Your task to perform on an android device: change the upload size in google photos Image 0: 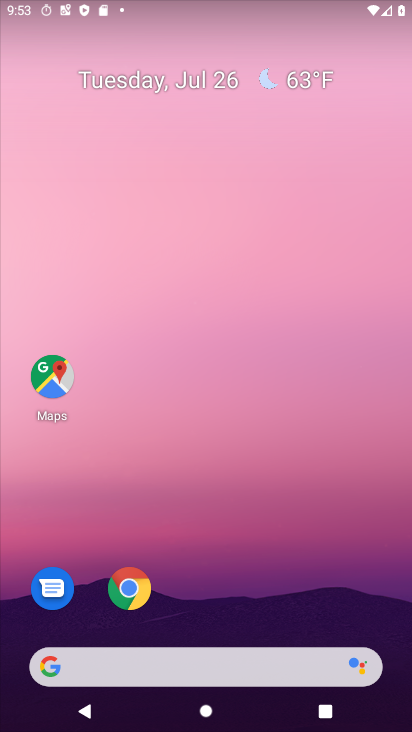
Step 0: drag from (264, 603) to (314, 136)
Your task to perform on an android device: change the upload size in google photos Image 1: 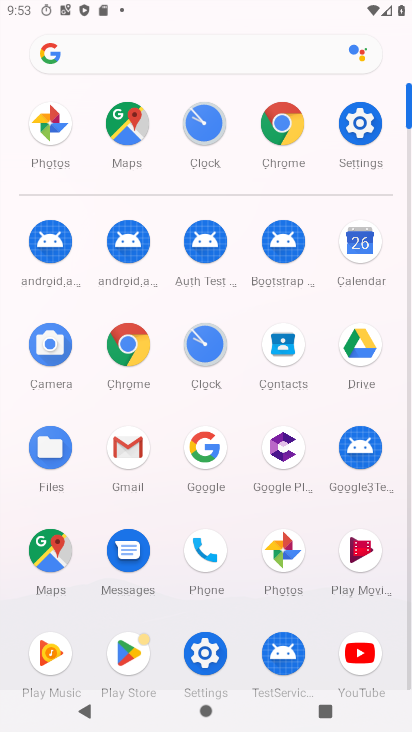
Step 1: click (34, 118)
Your task to perform on an android device: change the upload size in google photos Image 2: 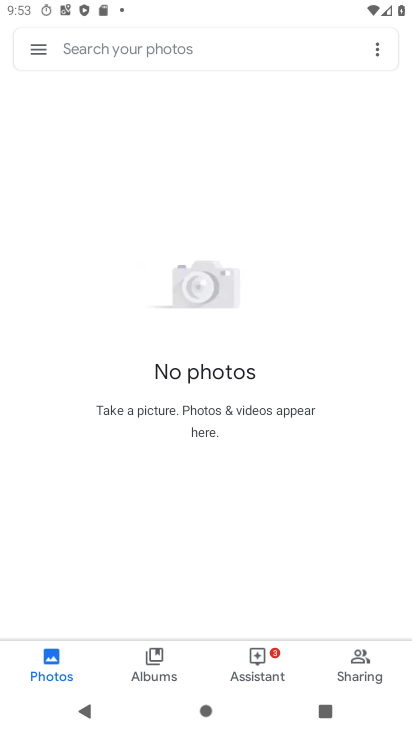
Step 2: click (38, 70)
Your task to perform on an android device: change the upload size in google photos Image 3: 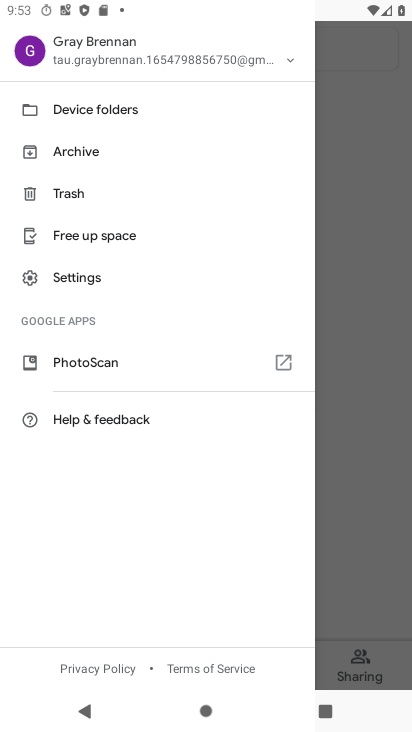
Step 3: click (58, 275)
Your task to perform on an android device: change the upload size in google photos Image 4: 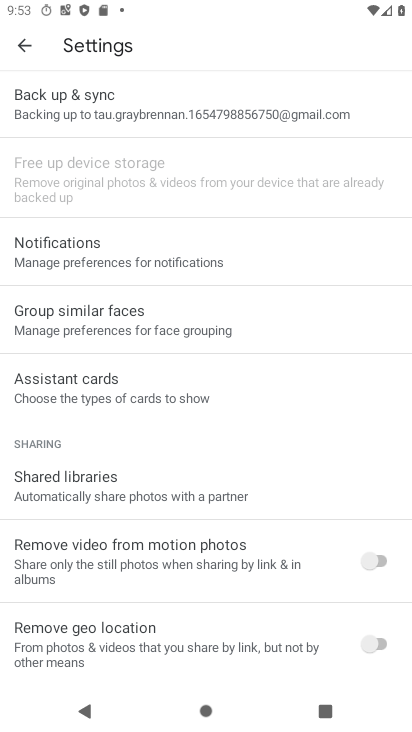
Step 4: click (55, 119)
Your task to perform on an android device: change the upload size in google photos Image 5: 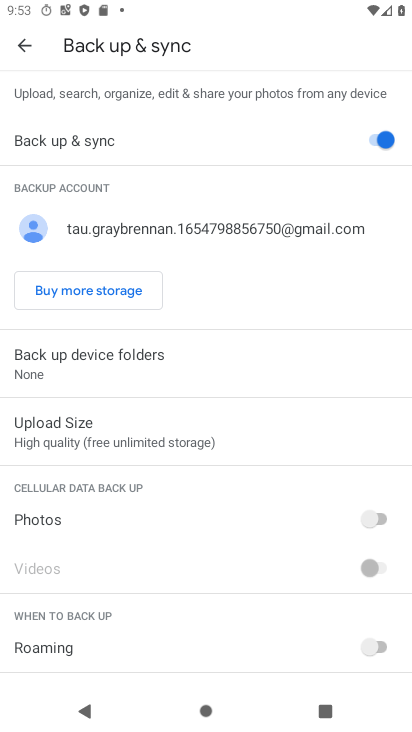
Step 5: click (100, 423)
Your task to perform on an android device: change the upload size in google photos Image 6: 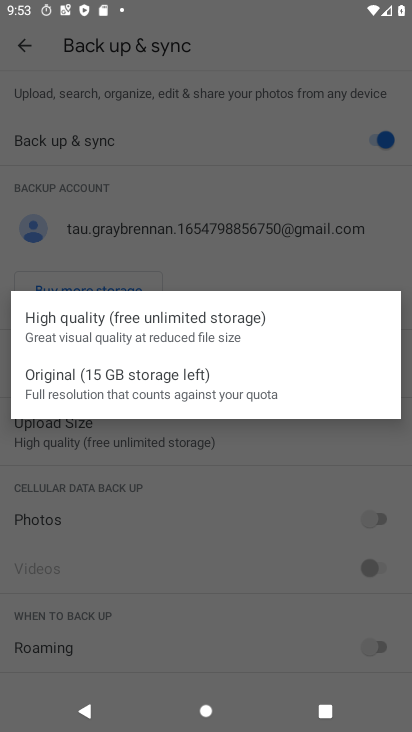
Step 6: click (87, 391)
Your task to perform on an android device: change the upload size in google photos Image 7: 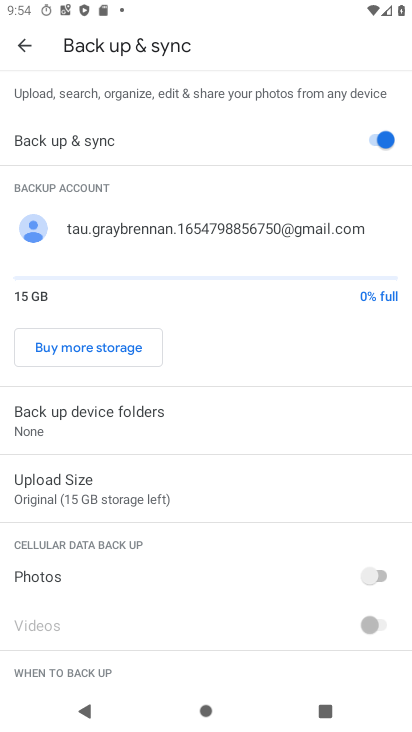
Step 7: task complete